Your task to perform on an android device: set the timer Image 0: 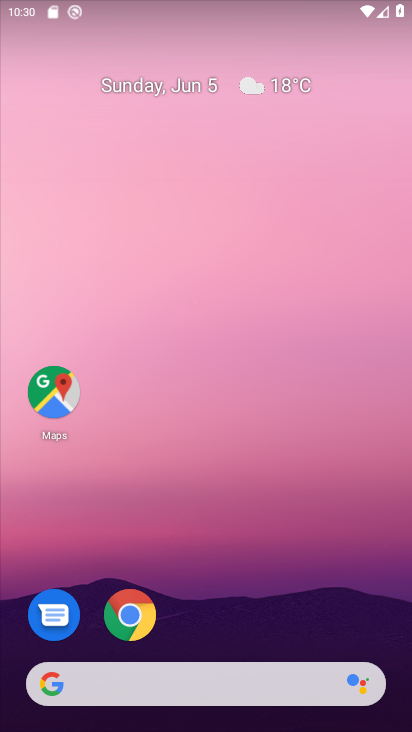
Step 0: drag from (237, 653) to (327, 97)
Your task to perform on an android device: set the timer Image 1: 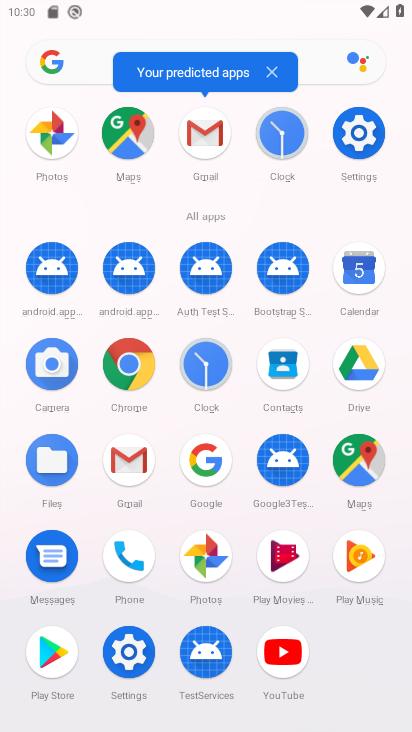
Step 1: click (207, 379)
Your task to perform on an android device: set the timer Image 2: 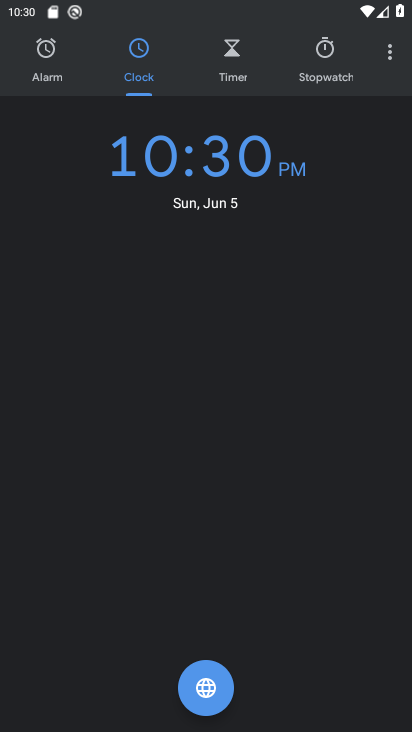
Step 2: click (233, 65)
Your task to perform on an android device: set the timer Image 3: 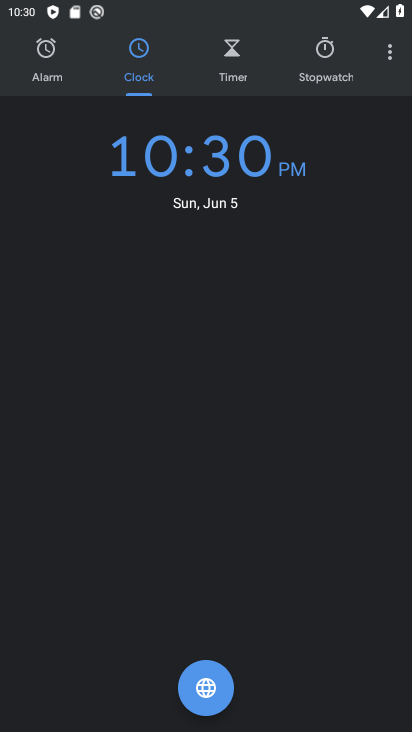
Step 3: click (233, 65)
Your task to perform on an android device: set the timer Image 4: 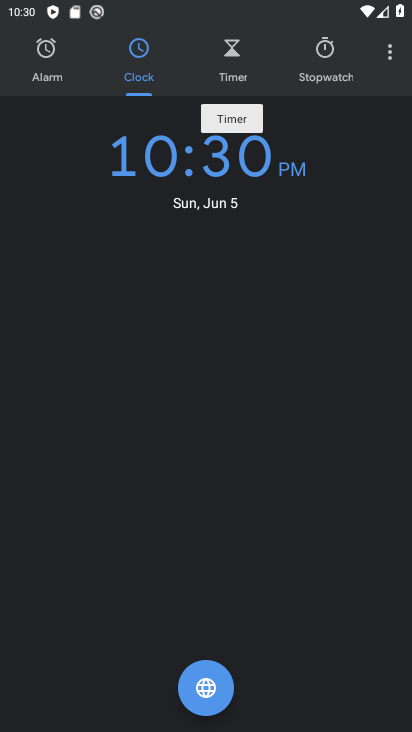
Step 4: click (241, 69)
Your task to perform on an android device: set the timer Image 5: 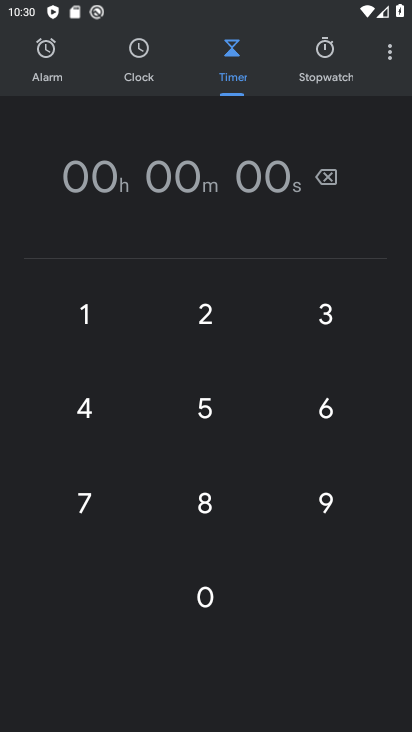
Step 5: click (214, 320)
Your task to perform on an android device: set the timer Image 6: 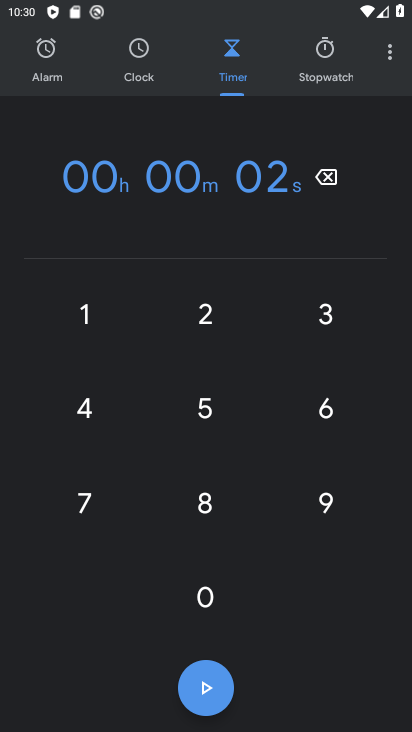
Step 6: click (213, 556)
Your task to perform on an android device: set the timer Image 7: 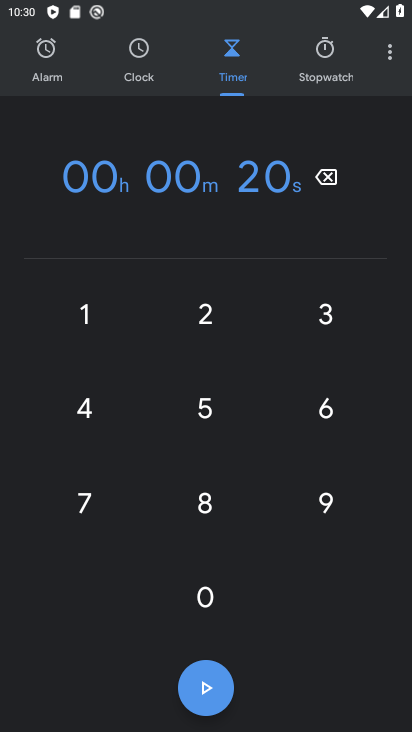
Step 7: click (208, 691)
Your task to perform on an android device: set the timer Image 8: 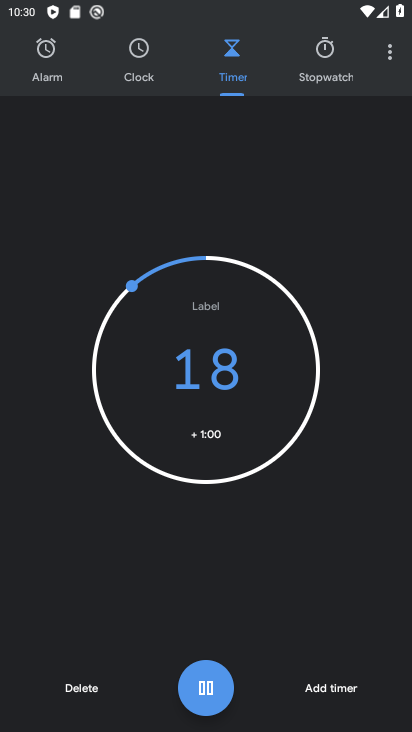
Step 8: task complete